Your task to perform on an android device: turn pop-ups on in chrome Image 0: 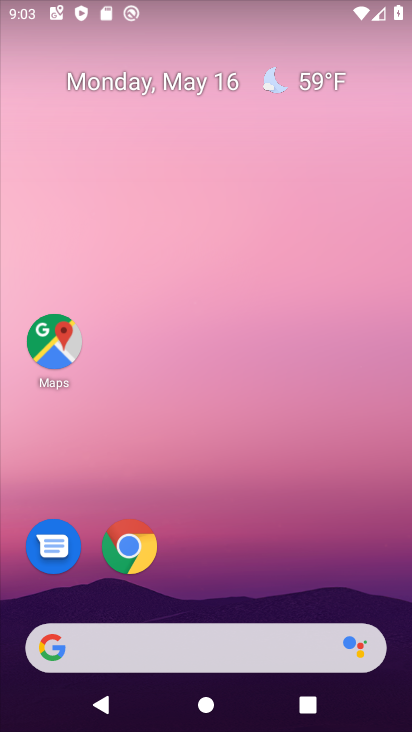
Step 0: click (139, 562)
Your task to perform on an android device: turn pop-ups on in chrome Image 1: 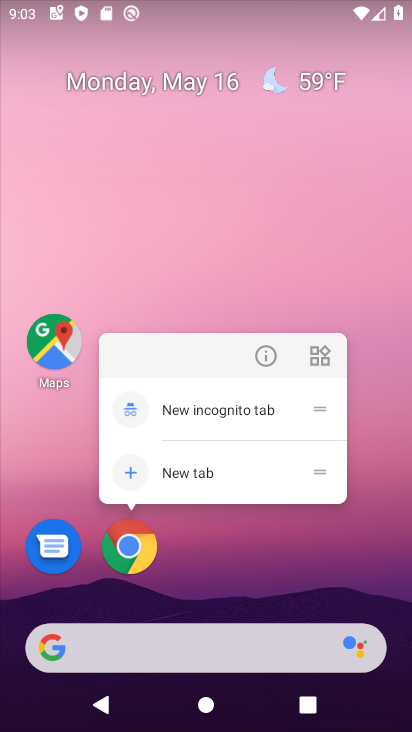
Step 1: click (139, 562)
Your task to perform on an android device: turn pop-ups on in chrome Image 2: 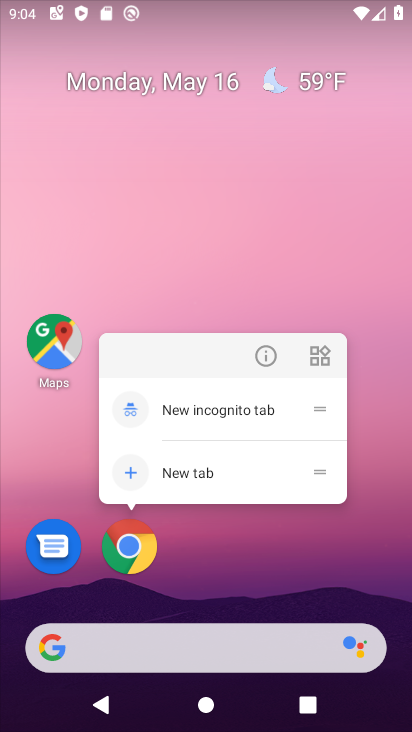
Step 2: click (162, 527)
Your task to perform on an android device: turn pop-ups on in chrome Image 3: 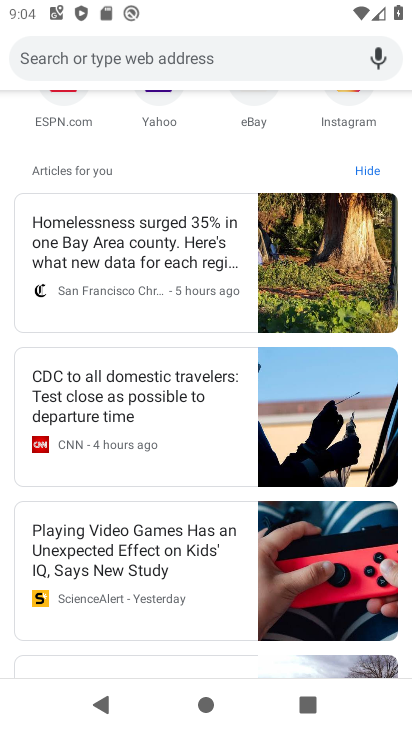
Step 3: drag from (357, 110) to (375, 658)
Your task to perform on an android device: turn pop-ups on in chrome Image 4: 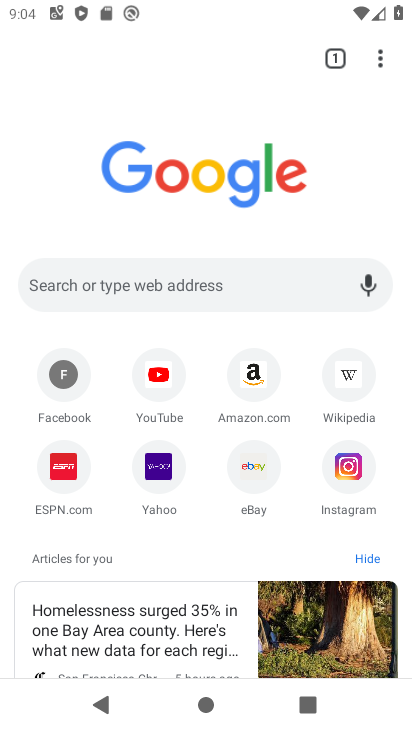
Step 4: drag from (379, 62) to (257, 497)
Your task to perform on an android device: turn pop-ups on in chrome Image 5: 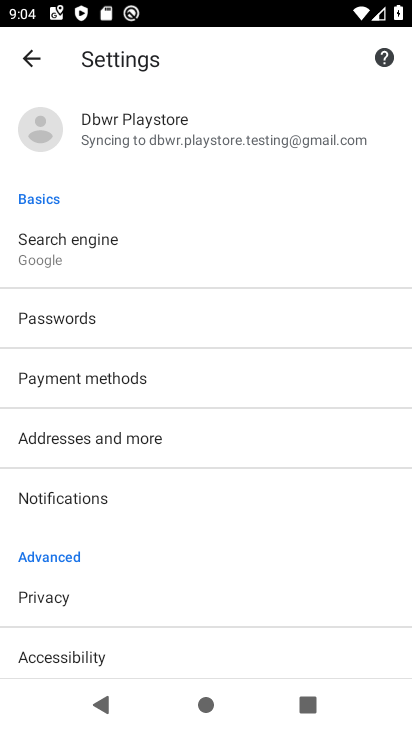
Step 5: drag from (143, 590) to (237, 233)
Your task to perform on an android device: turn pop-ups on in chrome Image 6: 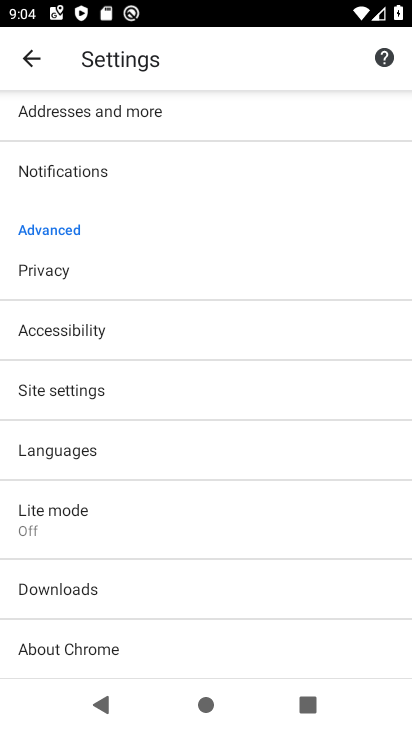
Step 6: click (48, 400)
Your task to perform on an android device: turn pop-ups on in chrome Image 7: 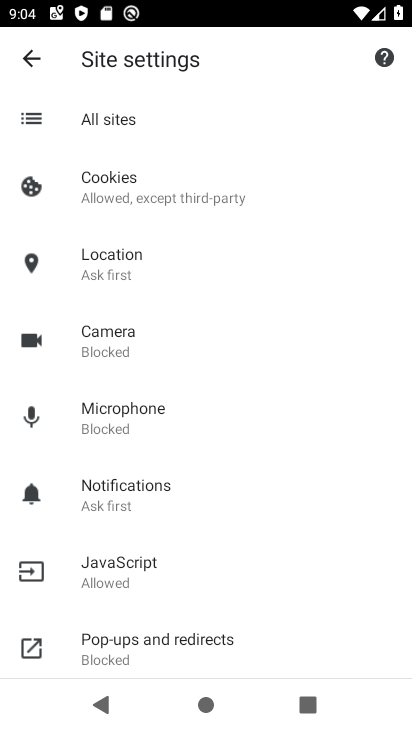
Step 7: drag from (208, 598) to (237, 185)
Your task to perform on an android device: turn pop-ups on in chrome Image 8: 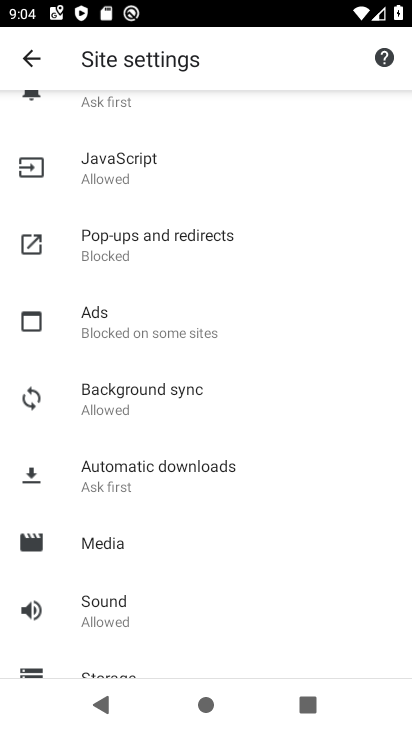
Step 8: click (145, 263)
Your task to perform on an android device: turn pop-ups on in chrome Image 9: 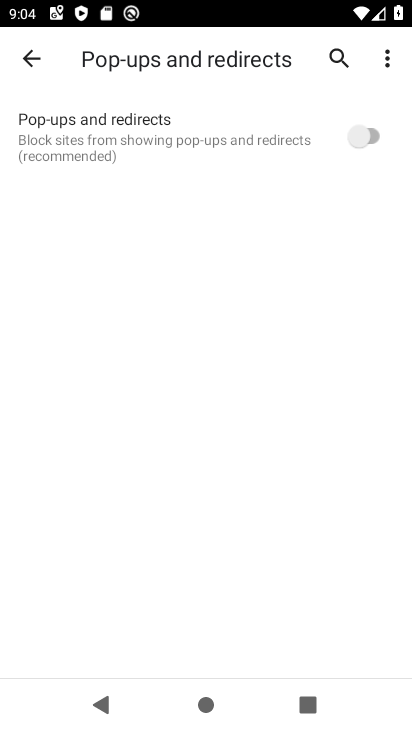
Step 9: click (372, 133)
Your task to perform on an android device: turn pop-ups on in chrome Image 10: 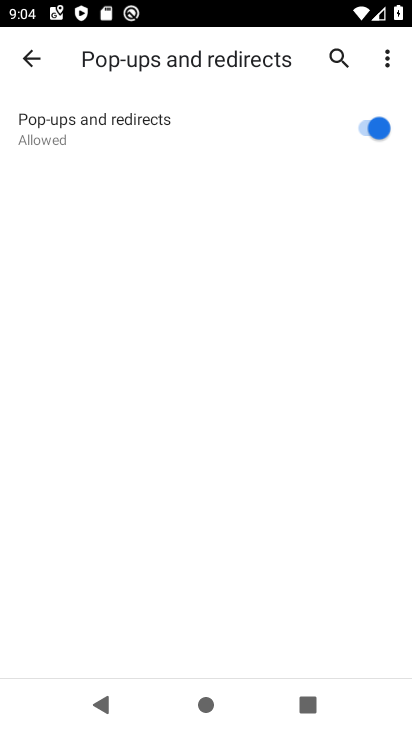
Step 10: task complete